Your task to perform on an android device: What's the weather going to be this weekend? Image 0: 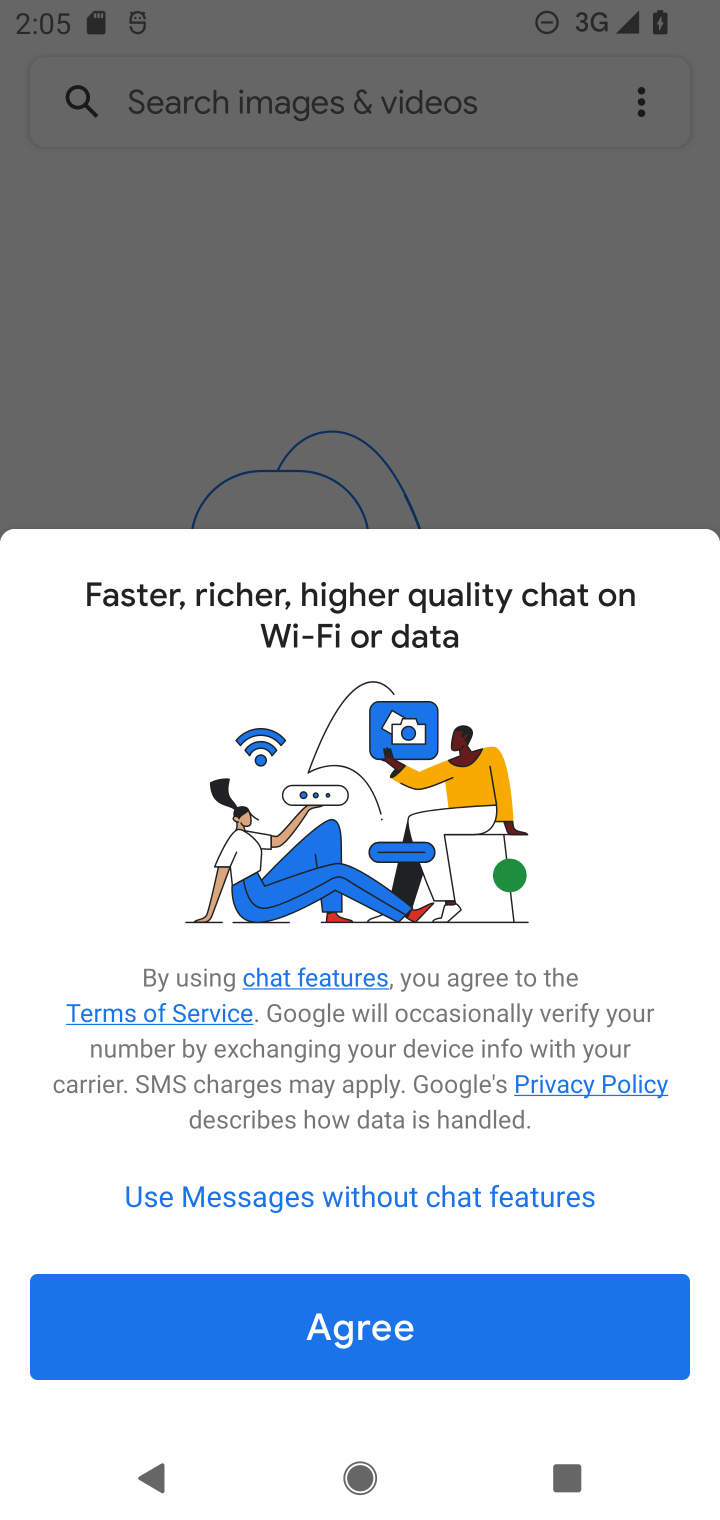
Step 0: press home button
Your task to perform on an android device: What's the weather going to be this weekend? Image 1: 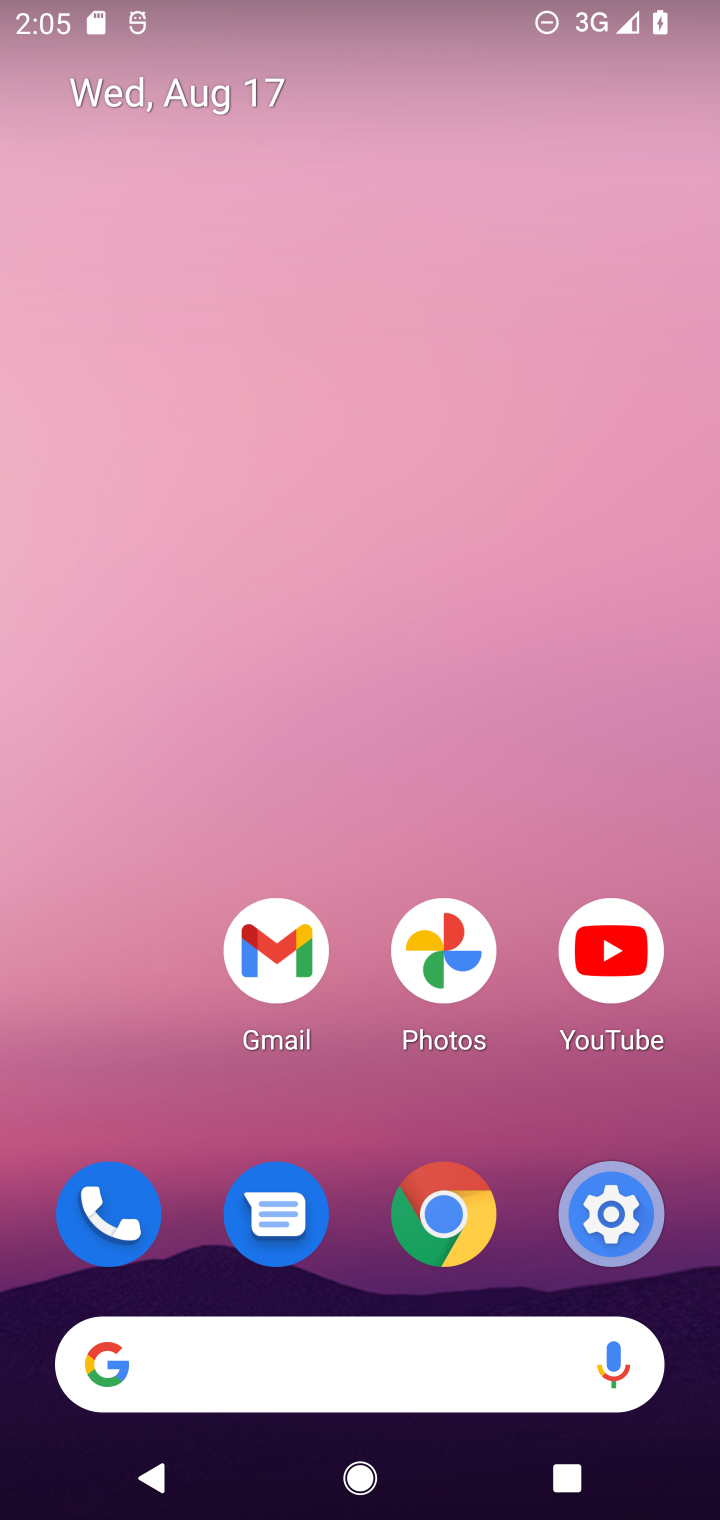
Step 1: drag from (346, 1252) to (293, 315)
Your task to perform on an android device: What's the weather going to be this weekend? Image 2: 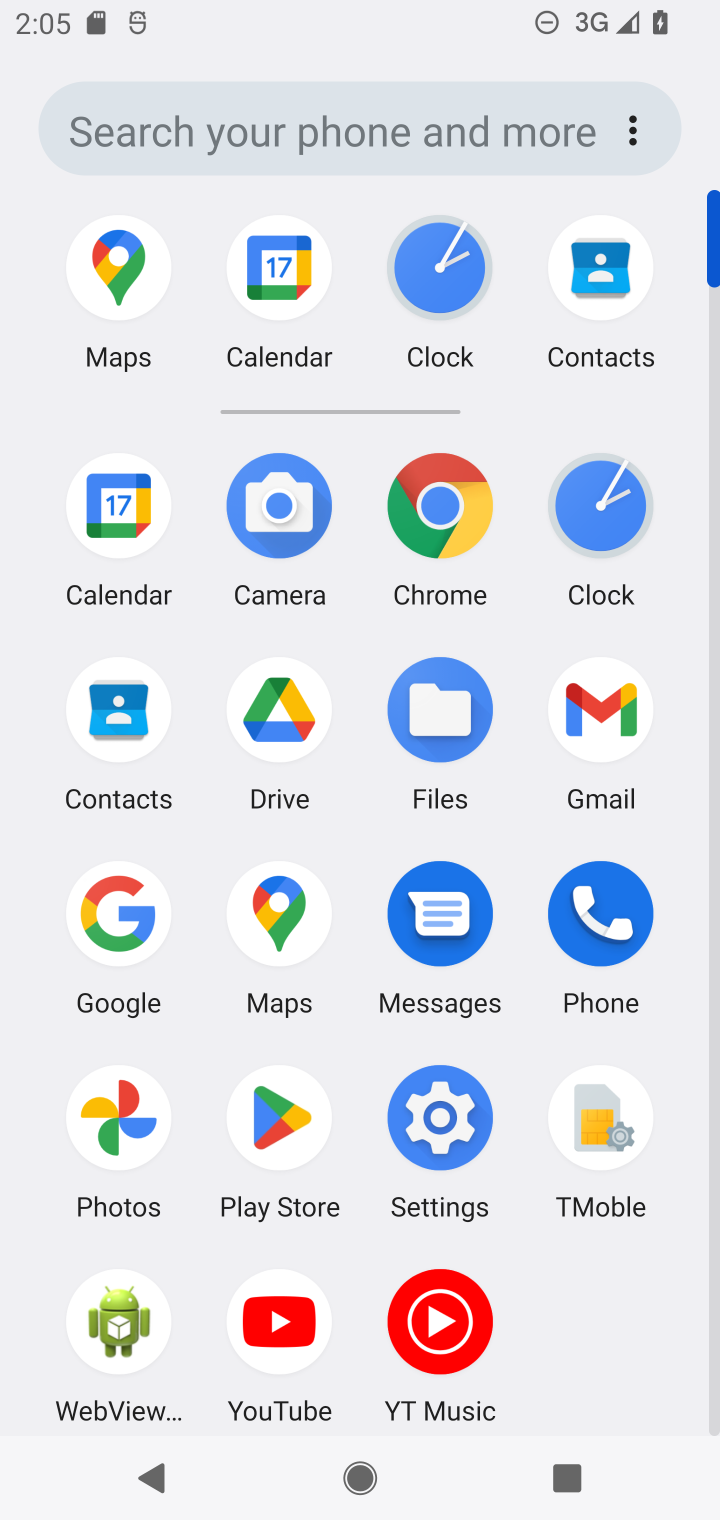
Step 2: click (127, 892)
Your task to perform on an android device: What's the weather going to be this weekend? Image 3: 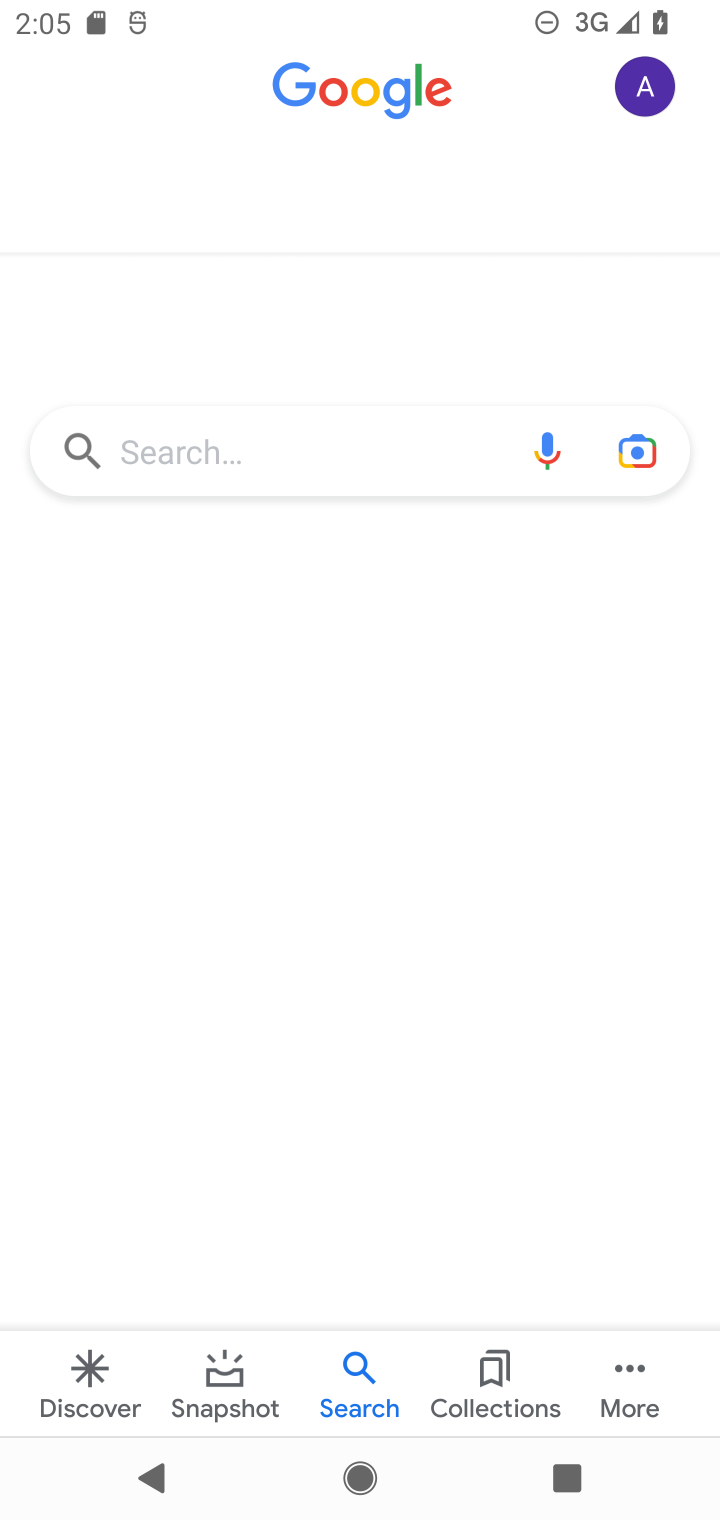
Step 3: click (304, 469)
Your task to perform on an android device: What's the weather going to be this weekend? Image 4: 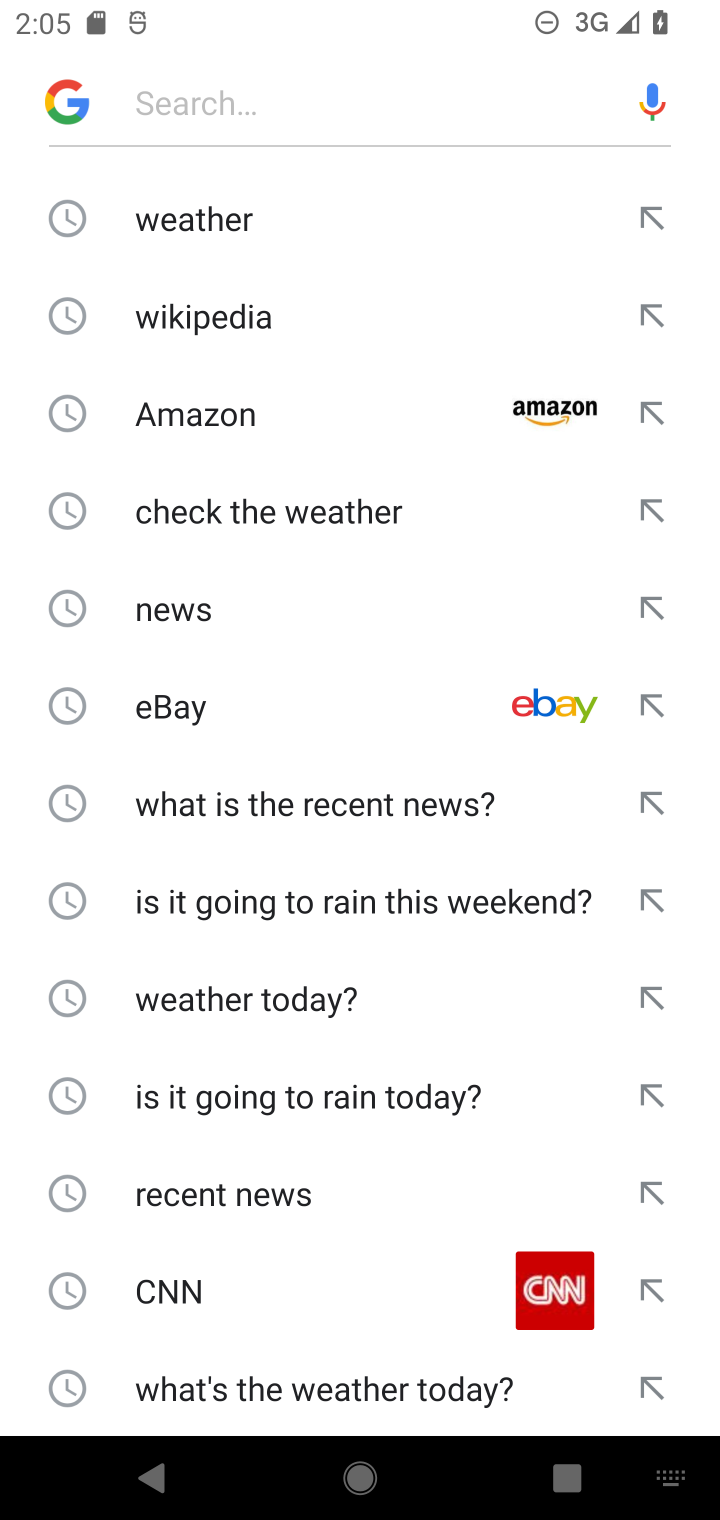
Step 4: click (187, 221)
Your task to perform on an android device: What's the weather going to be this weekend? Image 5: 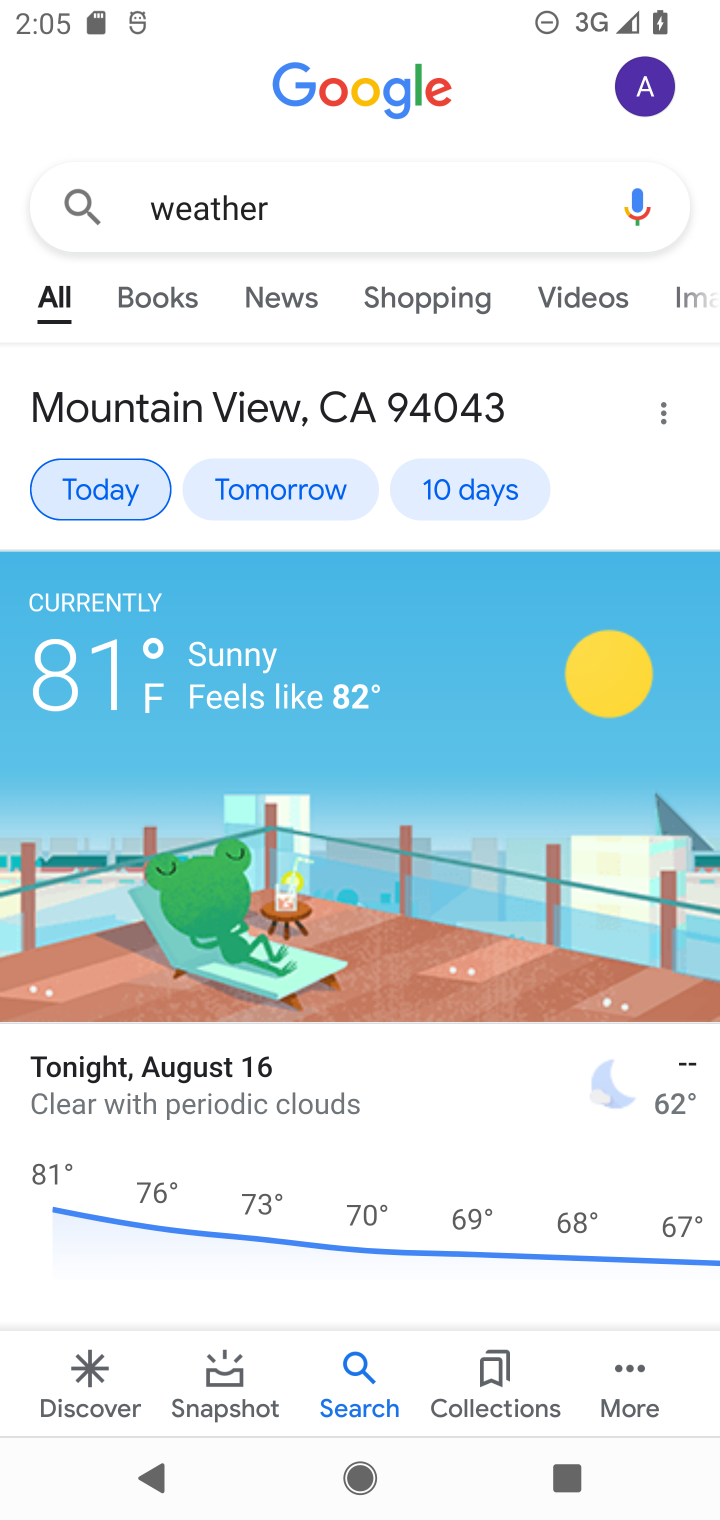
Step 5: click (457, 485)
Your task to perform on an android device: What's the weather going to be this weekend? Image 6: 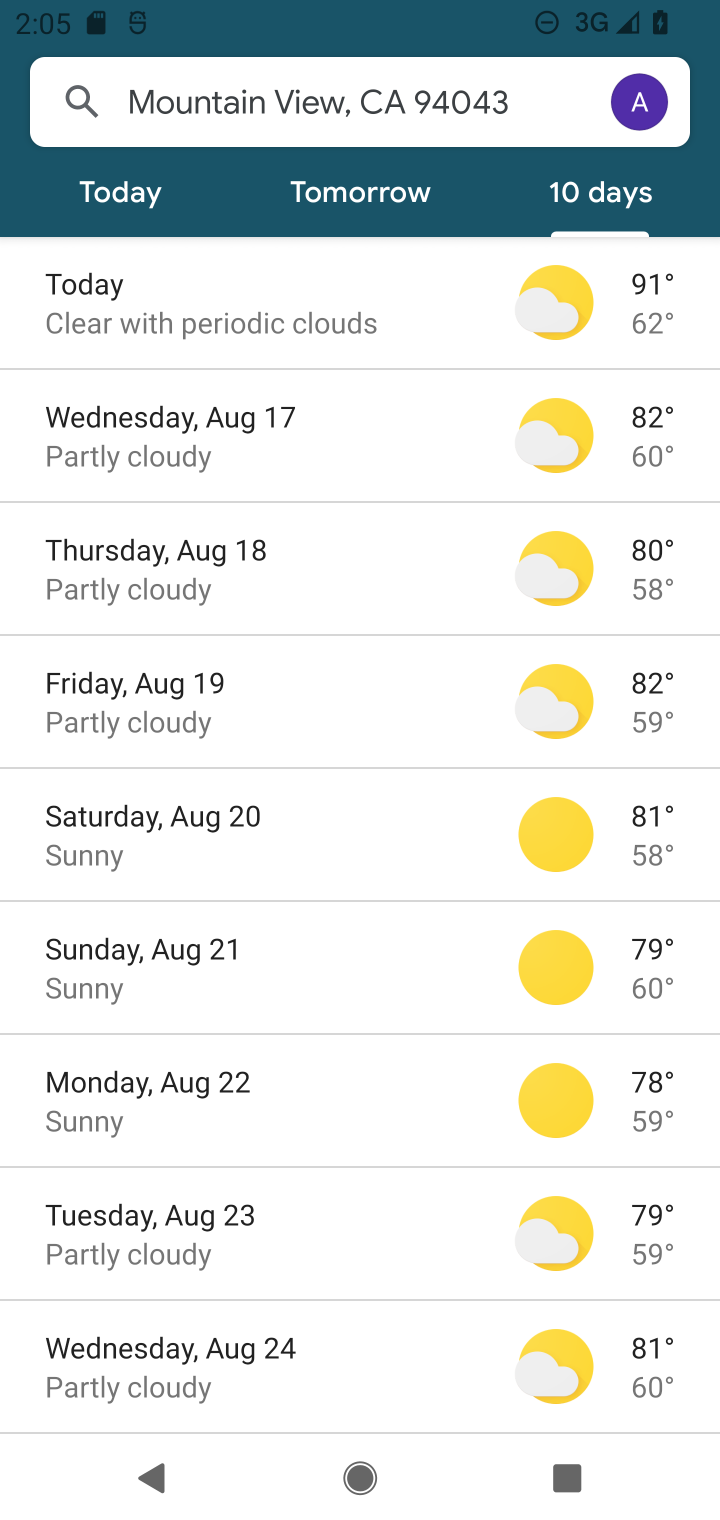
Step 6: task complete